Your task to perform on an android device: Check the news Image 0: 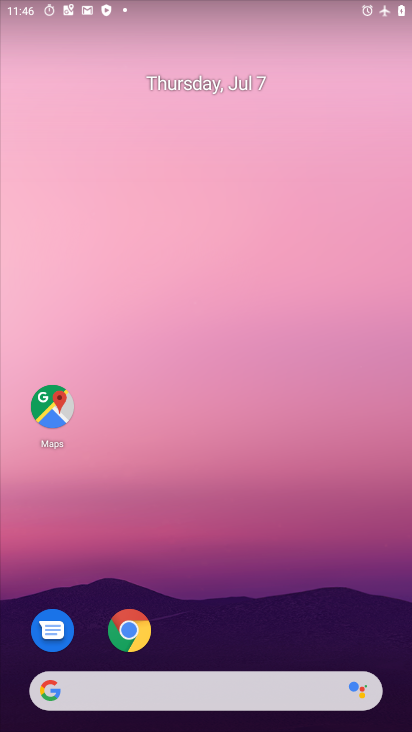
Step 0: drag from (253, 625) to (229, 237)
Your task to perform on an android device: Check the news Image 1: 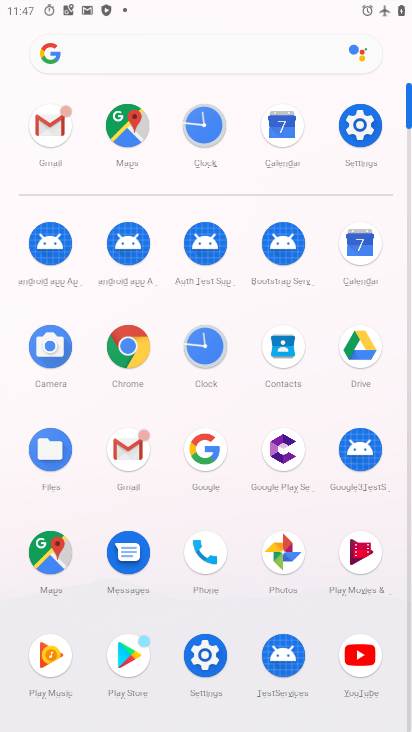
Step 1: click (210, 459)
Your task to perform on an android device: Check the news Image 2: 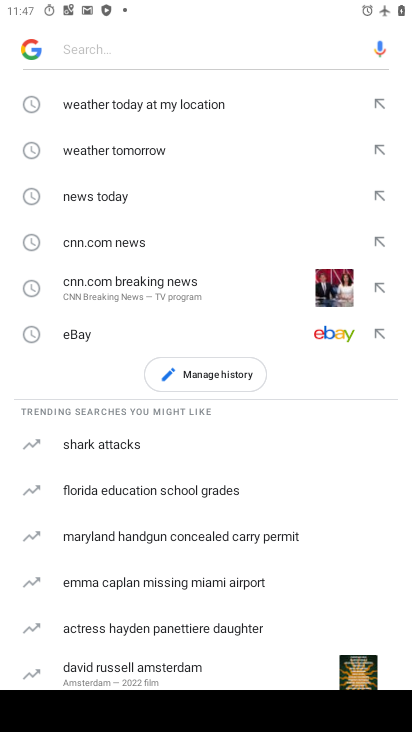
Step 2: click (126, 198)
Your task to perform on an android device: Check the news Image 3: 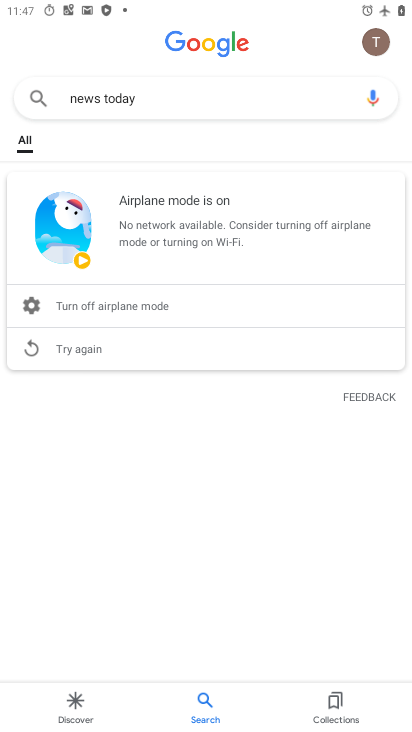
Step 3: task complete